Your task to perform on an android device: Is it going to rain this weekend? Image 0: 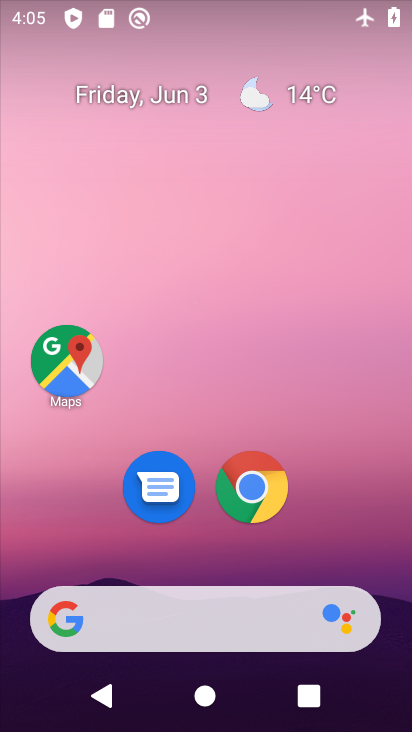
Step 0: click (197, 616)
Your task to perform on an android device: Is it going to rain this weekend? Image 1: 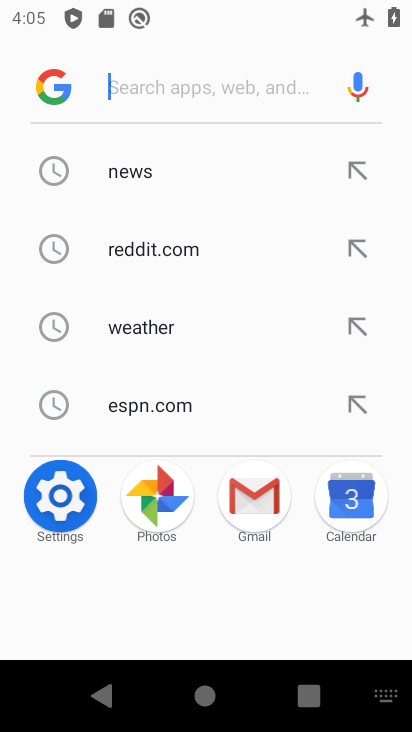
Step 1: click (159, 329)
Your task to perform on an android device: Is it going to rain this weekend? Image 2: 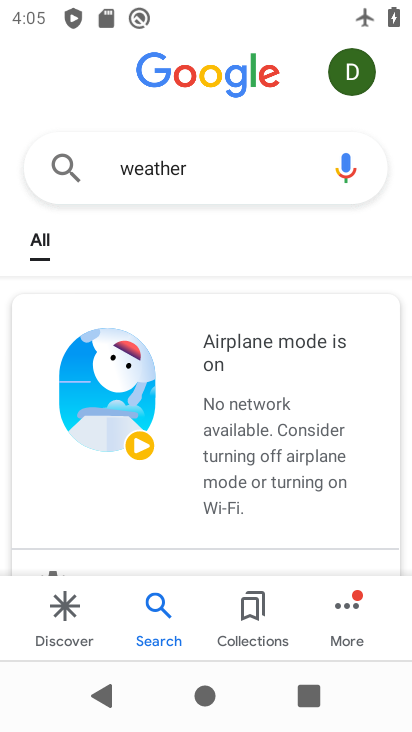
Step 2: drag from (311, 14) to (268, 338)
Your task to perform on an android device: Is it going to rain this weekend? Image 3: 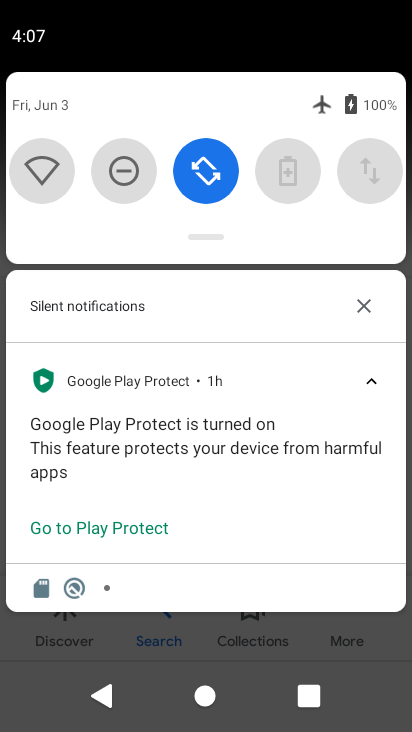
Step 3: drag from (118, 601) to (228, 60)
Your task to perform on an android device: Is it going to rain this weekend? Image 4: 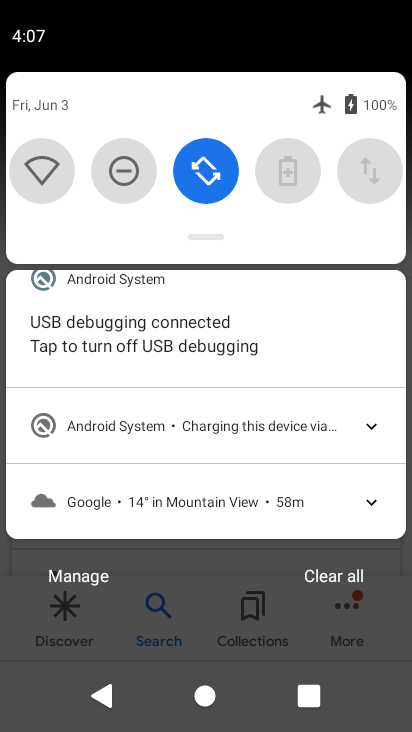
Step 4: drag from (132, 627) to (198, 155)
Your task to perform on an android device: Is it going to rain this weekend? Image 5: 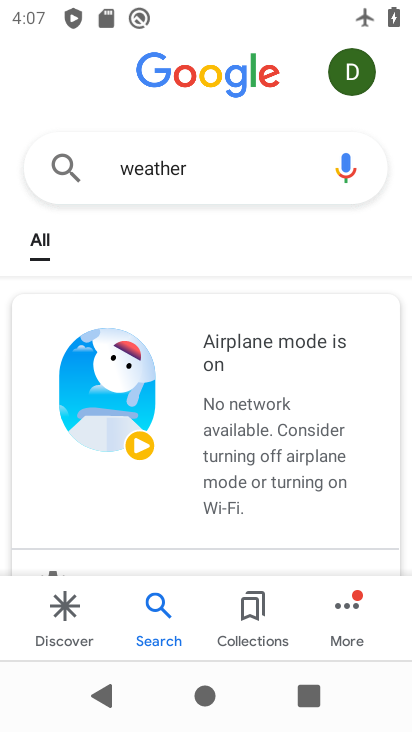
Step 5: drag from (312, 9) to (300, 583)
Your task to perform on an android device: Is it going to rain this weekend? Image 6: 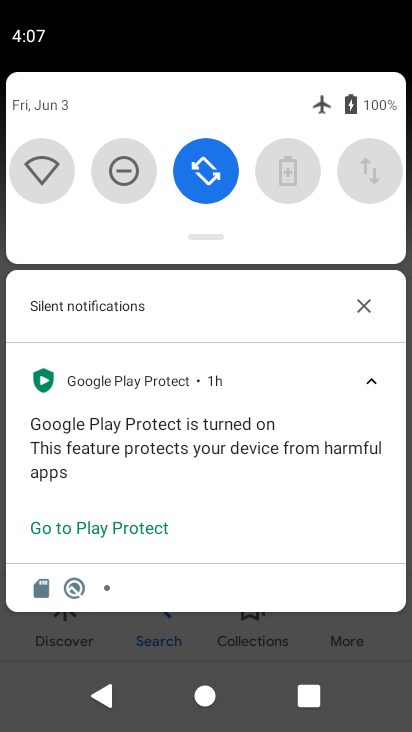
Step 6: drag from (225, 227) to (155, 655)
Your task to perform on an android device: Is it going to rain this weekend? Image 7: 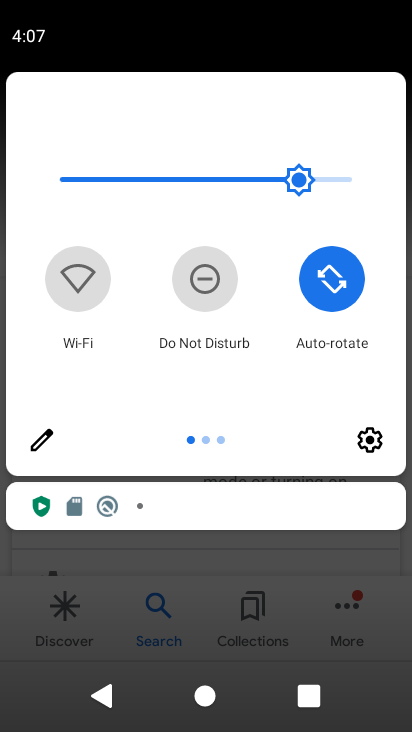
Step 7: drag from (366, 281) to (23, 286)
Your task to perform on an android device: Is it going to rain this weekend? Image 8: 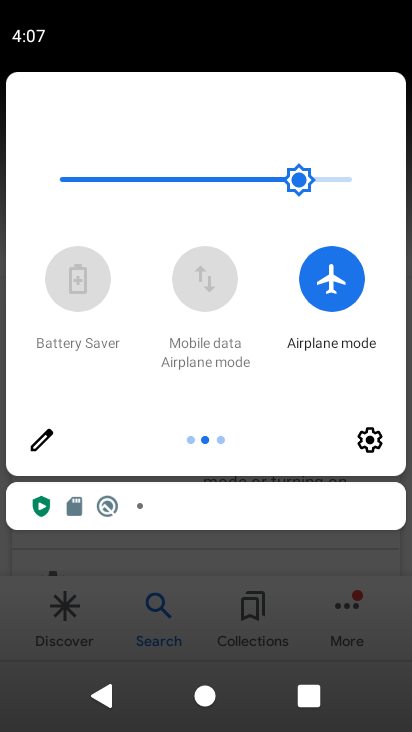
Step 8: click (325, 281)
Your task to perform on an android device: Is it going to rain this weekend? Image 9: 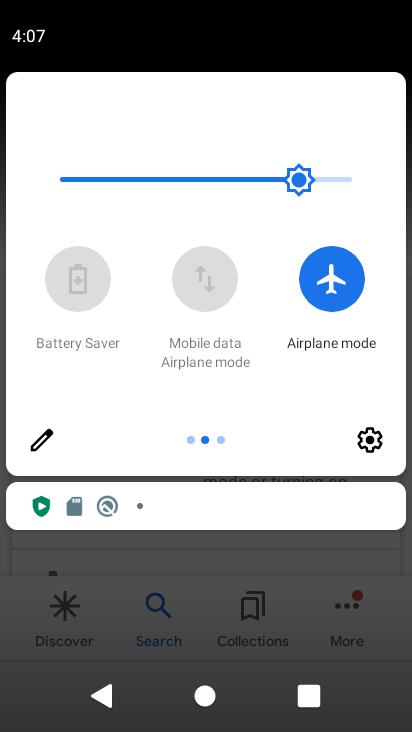
Step 9: click (192, 566)
Your task to perform on an android device: Is it going to rain this weekend? Image 10: 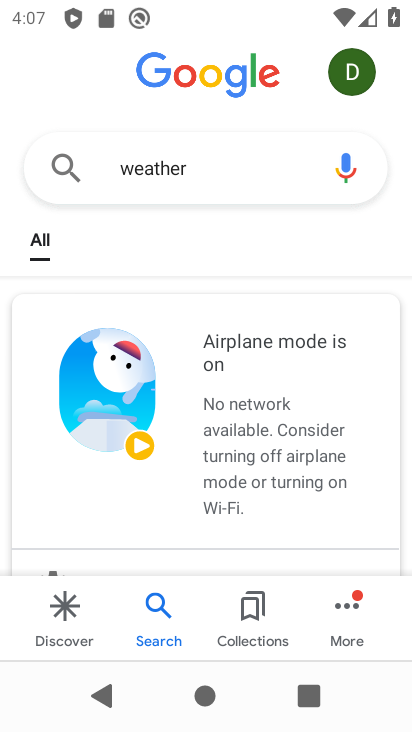
Step 10: drag from (216, 241) to (207, 618)
Your task to perform on an android device: Is it going to rain this weekend? Image 11: 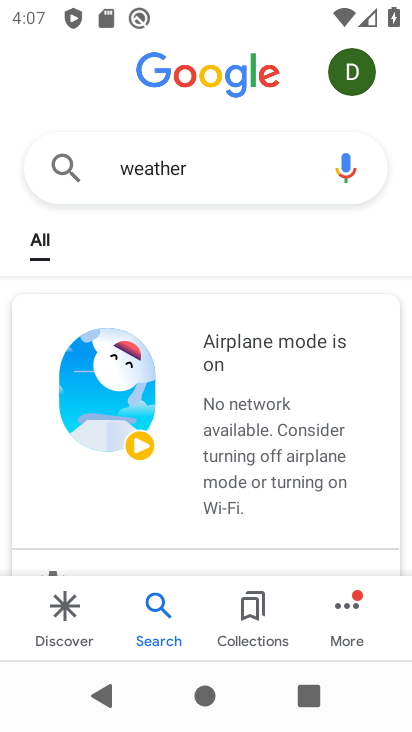
Step 11: drag from (203, 516) to (271, 126)
Your task to perform on an android device: Is it going to rain this weekend? Image 12: 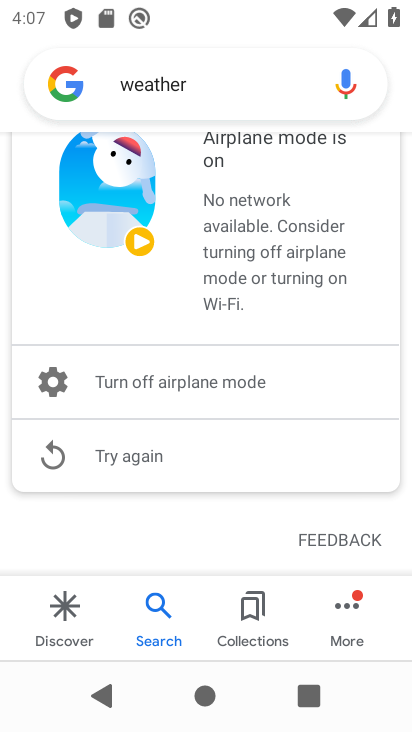
Step 12: click (55, 448)
Your task to perform on an android device: Is it going to rain this weekend? Image 13: 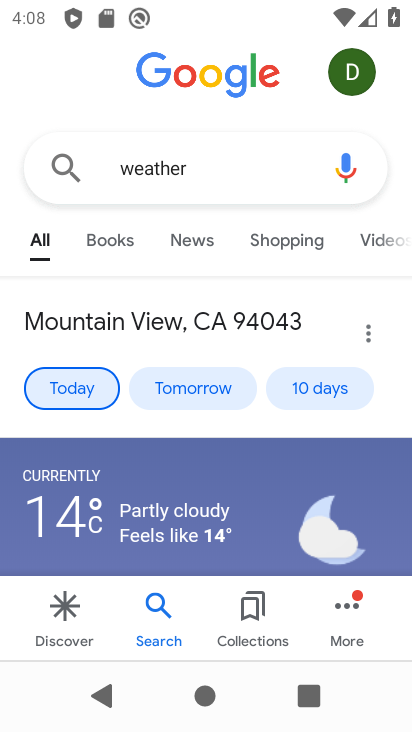
Step 13: click (329, 392)
Your task to perform on an android device: Is it going to rain this weekend? Image 14: 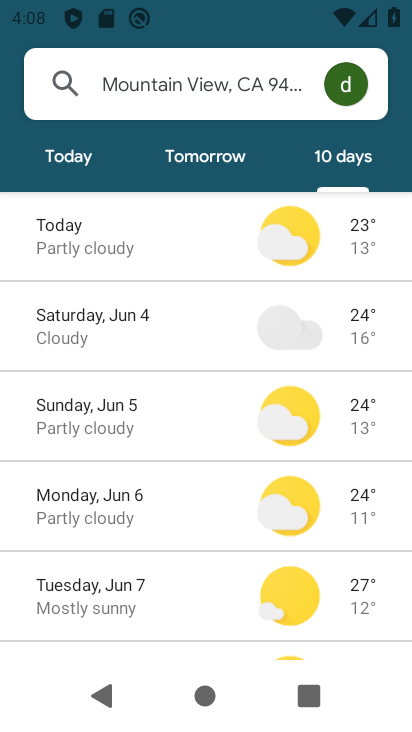
Step 14: task complete